Your task to perform on an android device: Go to accessibility settings Image 0: 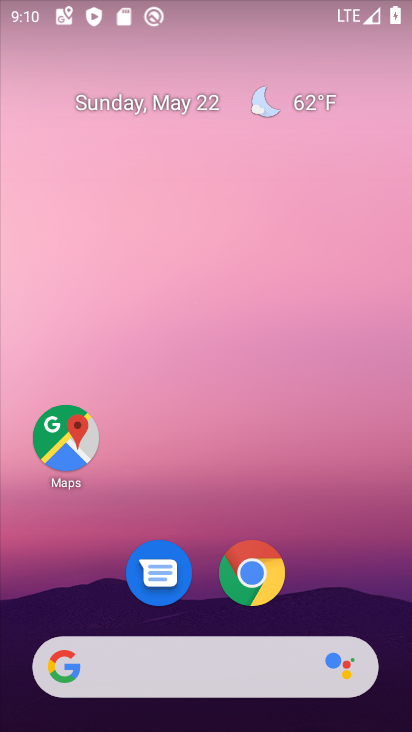
Step 0: drag from (291, 714) to (288, 1)
Your task to perform on an android device: Go to accessibility settings Image 1: 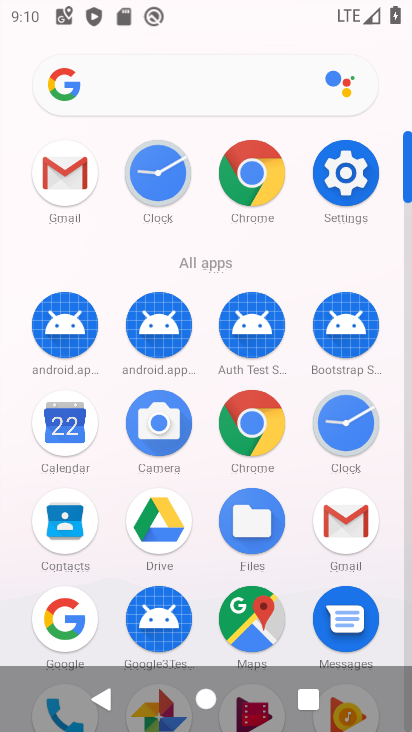
Step 1: click (341, 164)
Your task to perform on an android device: Go to accessibility settings Image 2: 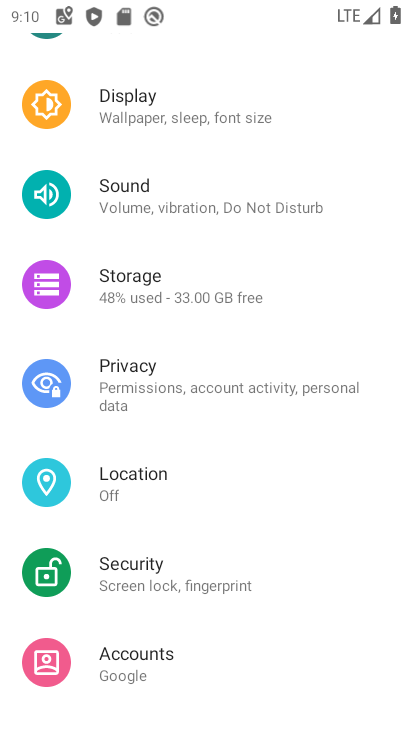
Step 2: drag from (197, 203) to (145, 661)
Your task to perform on an android device: Go to accessibility settings Image 3: 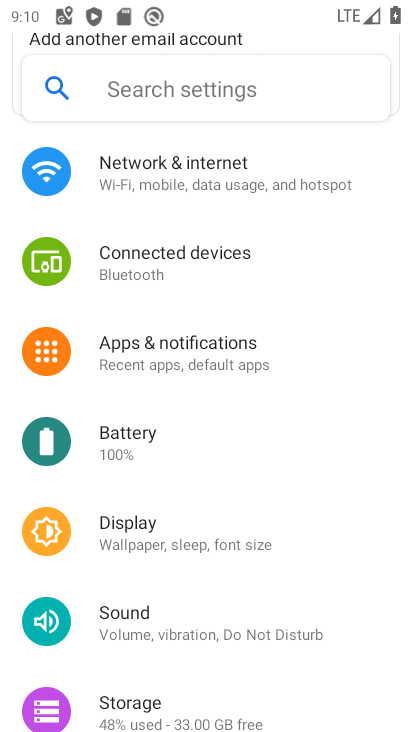
Step 3: drag from (225, 695) to (290, 32)
Your task to perform on an android device: Go to accessibility settings Image 4: 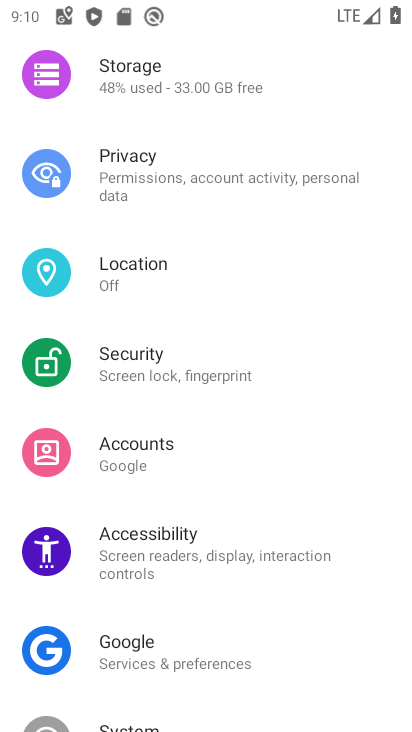
Step 4: click (199, 553)
Your task to perform on an android device: Go to accessibility settings Image 5: 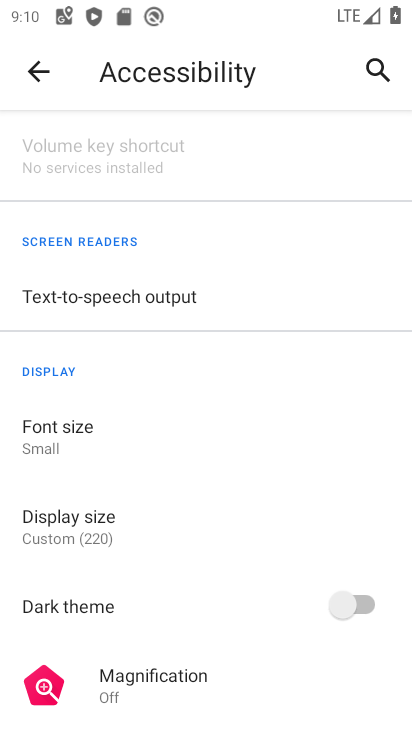
Step 5: task complete